Your task to perform on an android device: Open the calendar and show me this week's events? Image 0: 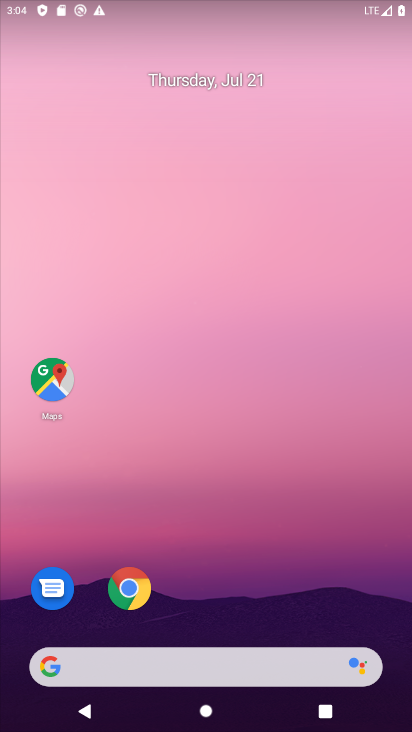
Step 0: press home button
Your task to perform on an android device: Open the calendar and show me this week's events? Image 1: 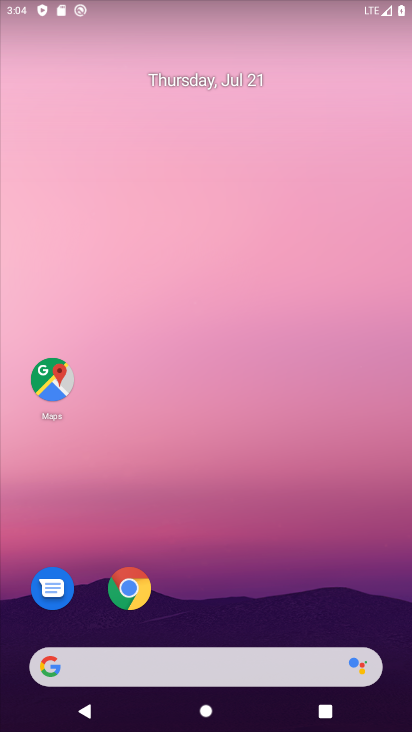
Step 1: drag from (288, 576) to (298, 0)
Your task to perform on an android device: Open the calendar and show me this week's events? Image 2: 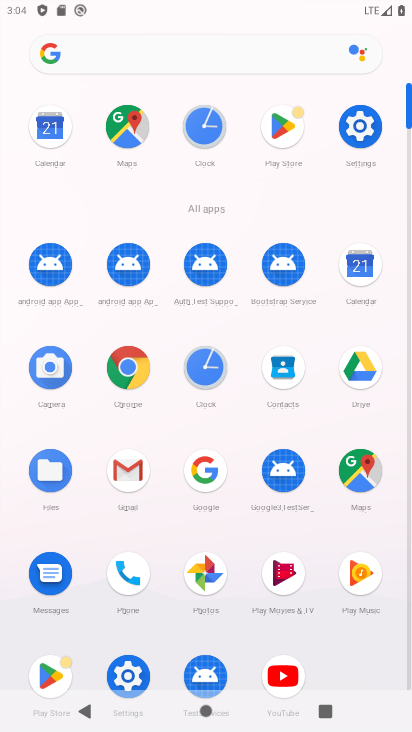
Step 2: click (366, 265)
Your task to perform on an android device: Open the calendar and show me this week's events? Image 3: 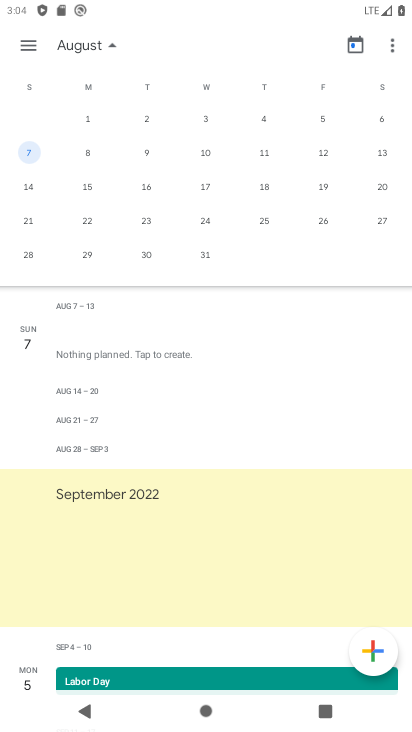
Step 3: drag from (53, 198) to (355, 155)
Your task to perform on an android device: Open the calendar and show me this week's events? Image 4: 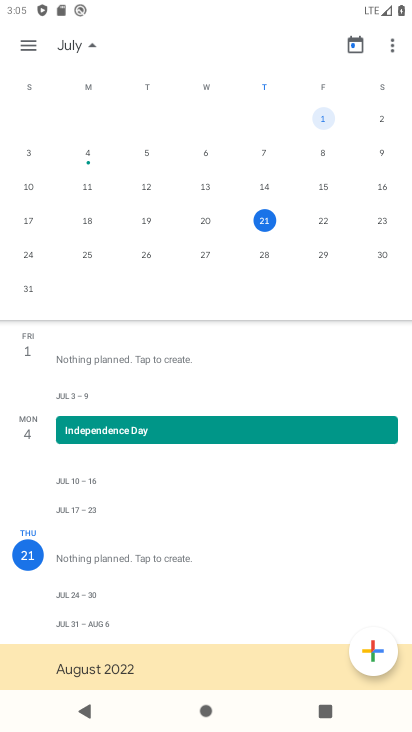
Step 4: click (318, 220)
Your task to perform on an android device: Open the calendar and show me this week's events? Image 5: 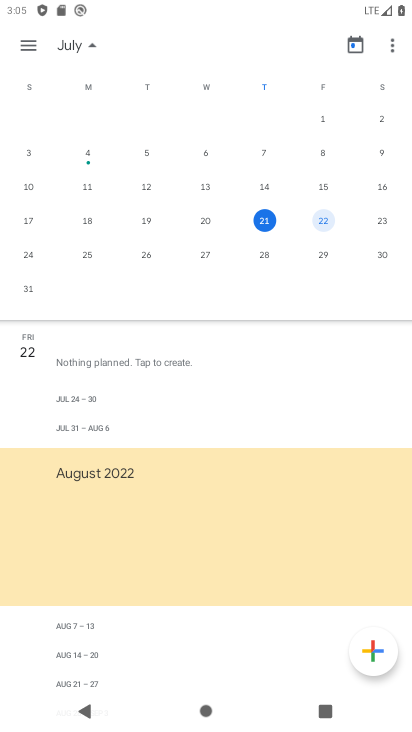
Step 5: click (380, 223)
Your task to perform on an android device: Open the calendar and show me this week's events? Image 6: 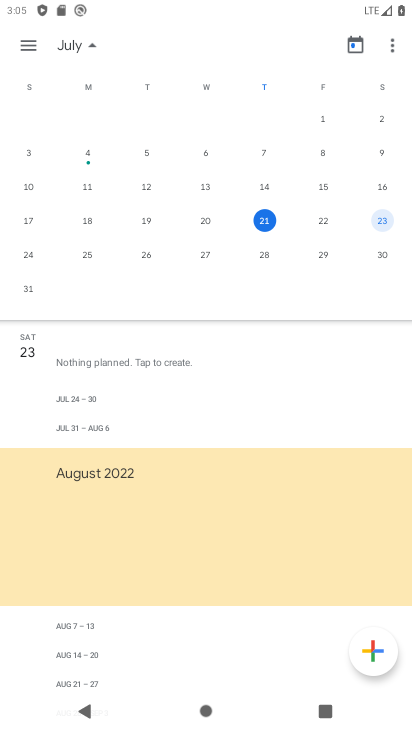
Step 6: task complete